Your task to perform on an android device: change the upload size in google photos Image 0: 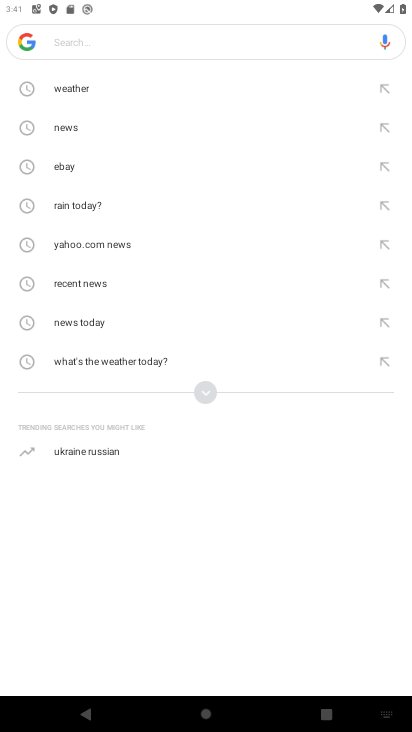
Step 0: press back button
Your task to perform on an android device: change the upload size in google photos Image 1: 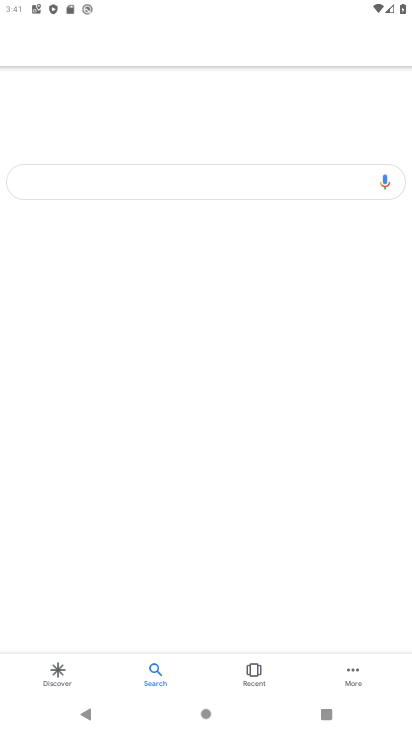
Step 1: press back button
Your task to perform on an android device: change the upload size in google photos Image 2: 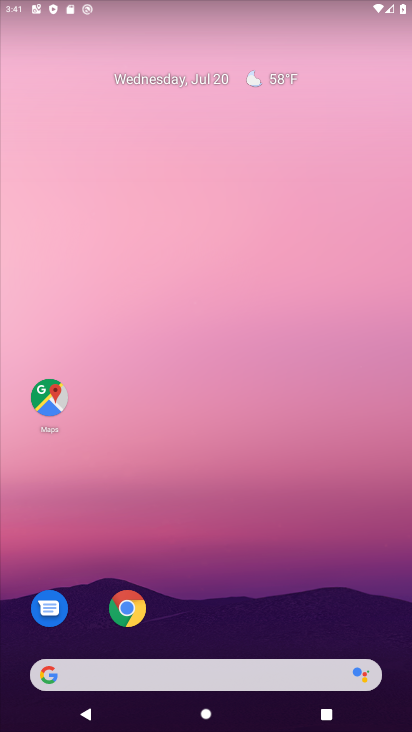
Step 2: drag from (272, 599) to (250, 162)
Your task to perform on an android device: change the upload size in google photos Image 3: 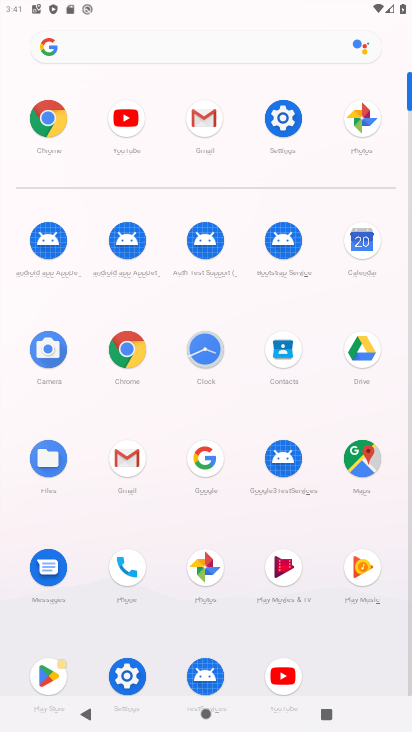
Step 3: click (201, 575)
Your task to perform on an android device: change the upload size in google photos Image 4: 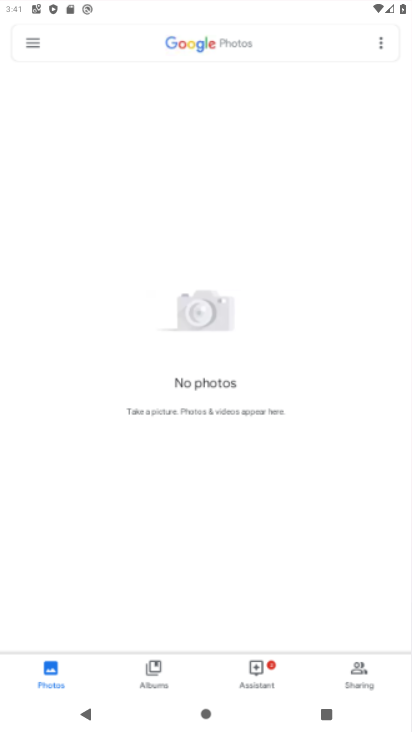
Step 4: task complete